Your task to perform on an android device: turn on priority inbox in the gmail app Image 0: 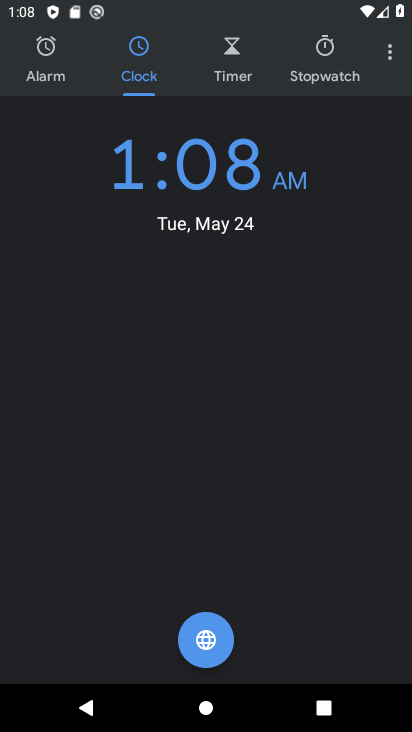
Step 0: press home button
Your task to perform on an android device: turn on priority inbox in the gmail app Image 1: 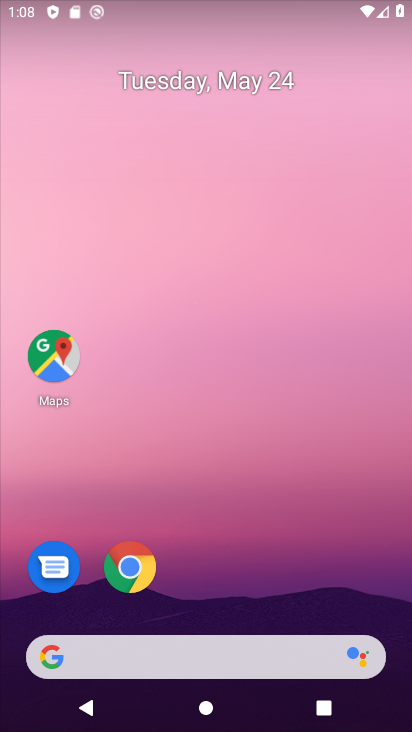
Step 1: drag from (219, 594) to (328, 0)
Your task to perform on an android device: turn on priority inbox in the gmail app Image 2: 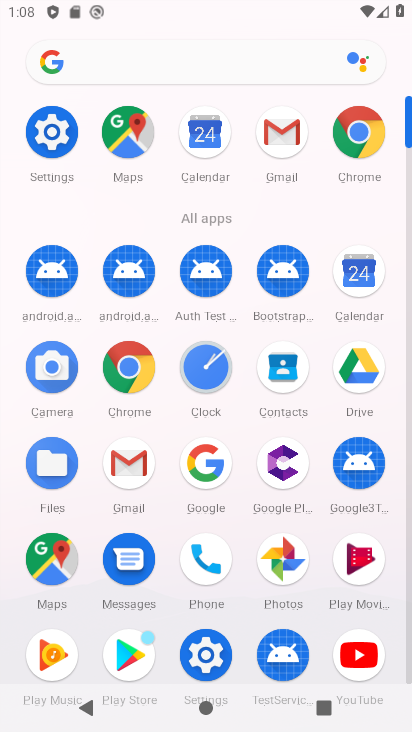
Step 2: click (123, 466)
Your task to perform on an android device: turn on priority inbox in the gmail app Image 3: 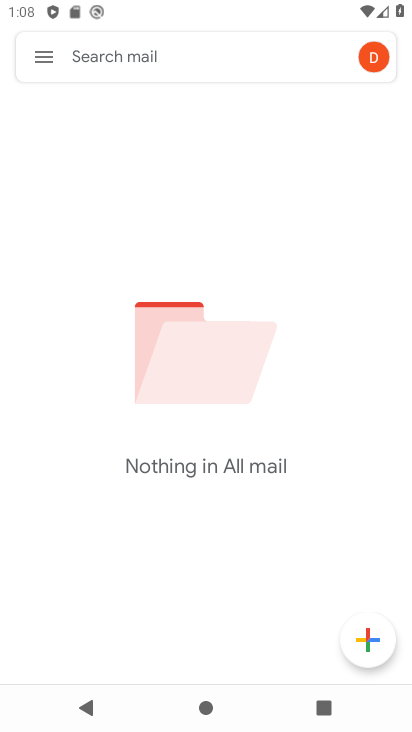
Step 3: click (26, 62)
Your task to perform on an android device: turn on priority inbox in the gmail app Image 4: 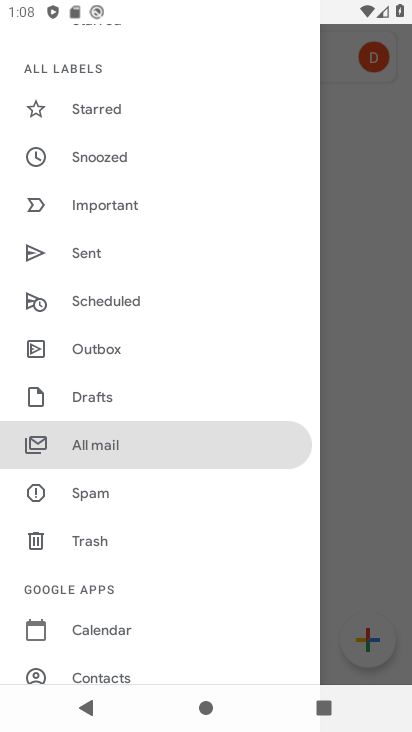
Step 4: drag from (119, 607) to (207, 198)
Your task to perform on an android device: turn on priority inbox in the gmail app Image 5: 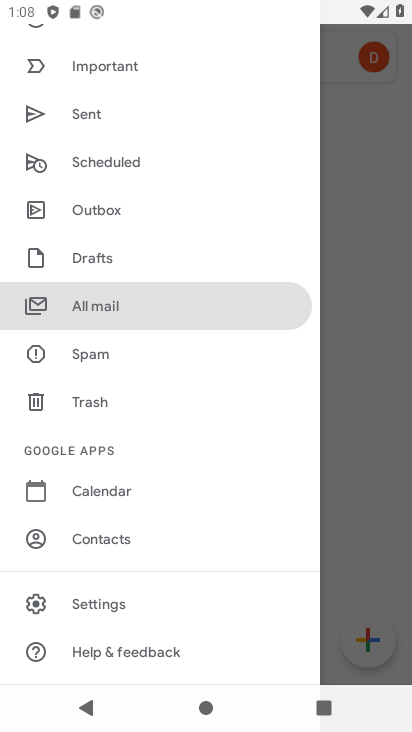
Step 5: drag from (162, 514) to (239, 80)
Your task to perform on an android device: turn on priority inbox in the gmail app Image 6: 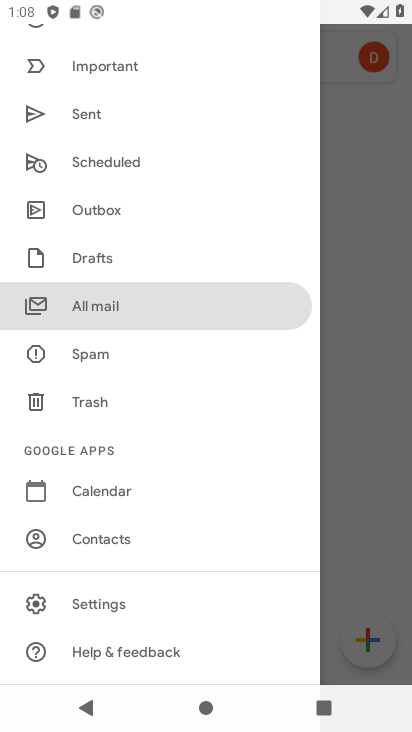
Step 6: click (110, 609)
Your task to perform on an android device: turn on priority inbox in the gmail app Image 7: 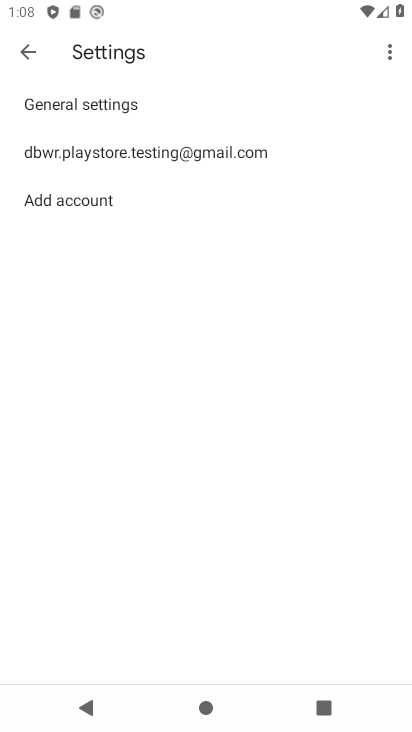
Step 7: click (125, 155)
Your task to perform on an android device: turn on priority inbox in the gmail app Image 8: 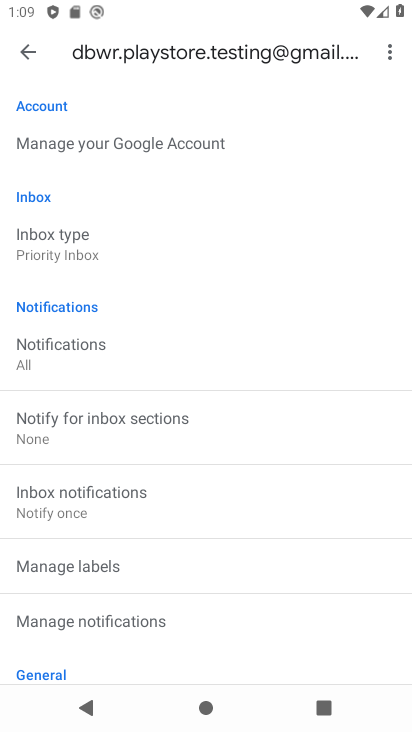
Step 8: click (88, 253)
Your task to perform on an android device: turn on priority inbox in the gmail app Image 9: 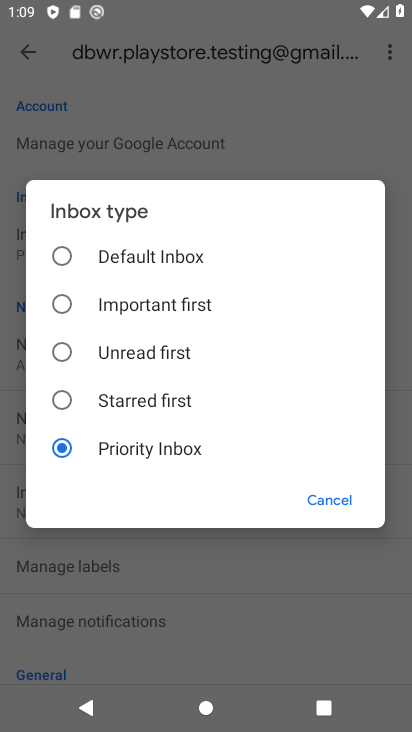
Step 9: task complete